Your task to perform on an android device: stop showing notifications on the lock screen Image 0: 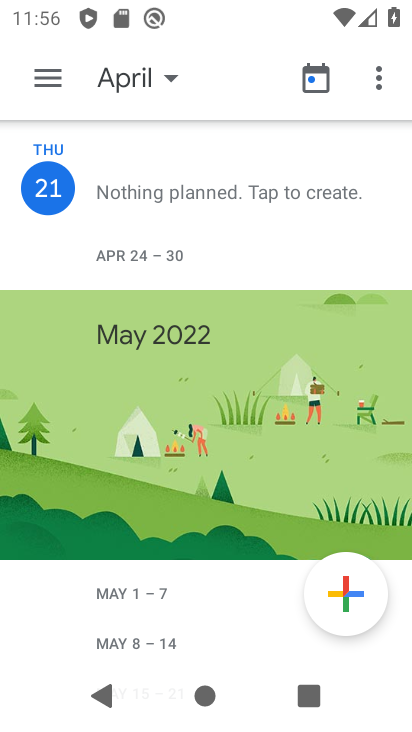
Step 0: press home button
Your task to perform on an android device: stop showing notifications on the lock screen Image 1: 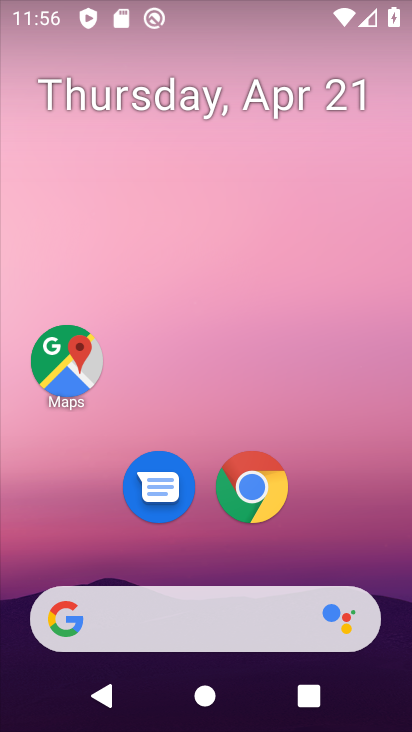
Step 1: drag from (278, 425) to (312, 58)
Your task to perform on an android device: stop showing notifications on the lock screen Image 2: 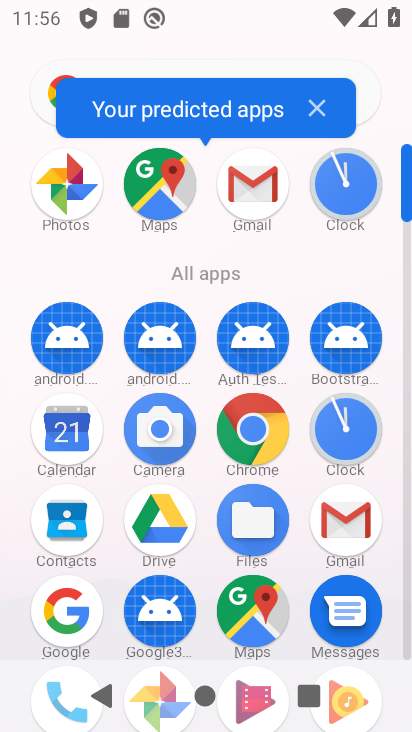
Step 2: drag from (228, 493) to (293, 83)
Your task to perform on an android device: stop showing notifications on the lock screen Image 3: 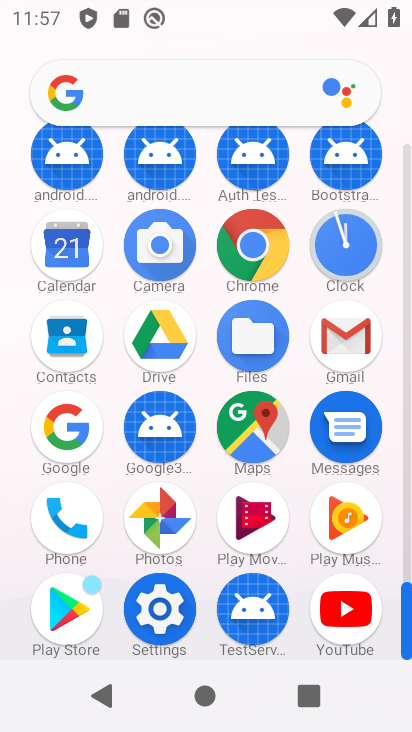
Step 3: click (153, 619)
Your task to perform on an android device: stop showing notifications on the lock screen Image 4: 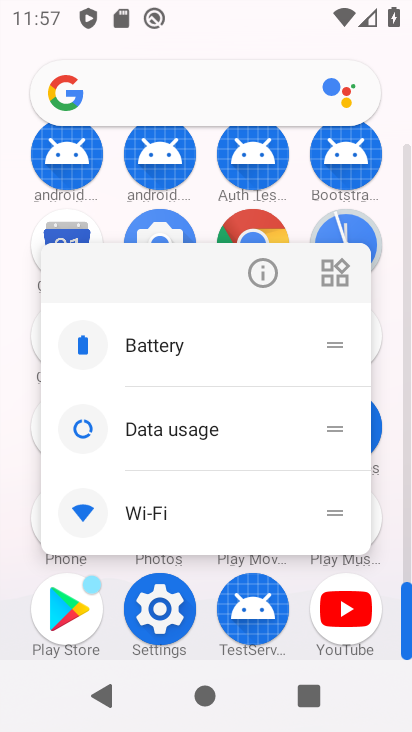
Step 4: click (158, 605)
Your task to perform on an android device: stop showing notifications on the lock screen Image 5: 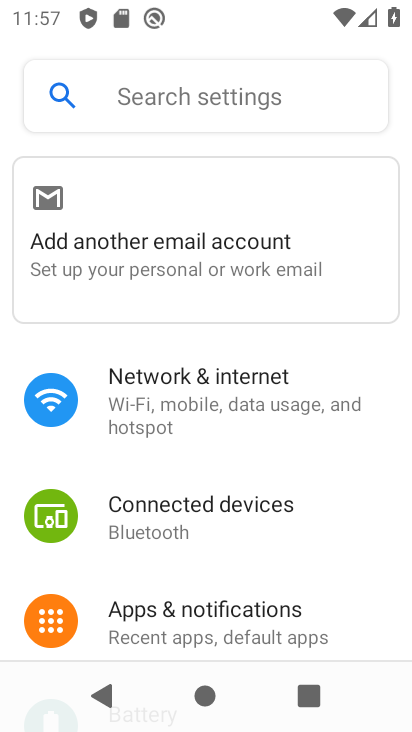
Step 5: click (215, 600)
Your task to perform on an android device: stop showing notifications on the lock screen Image 6: 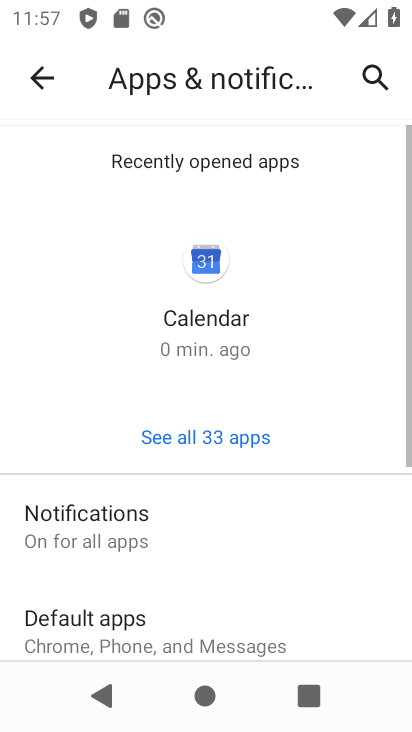
Step 6: click (144, 535)
Your task to perform on an android device: stop showing notifications on the lock screen Image 7: 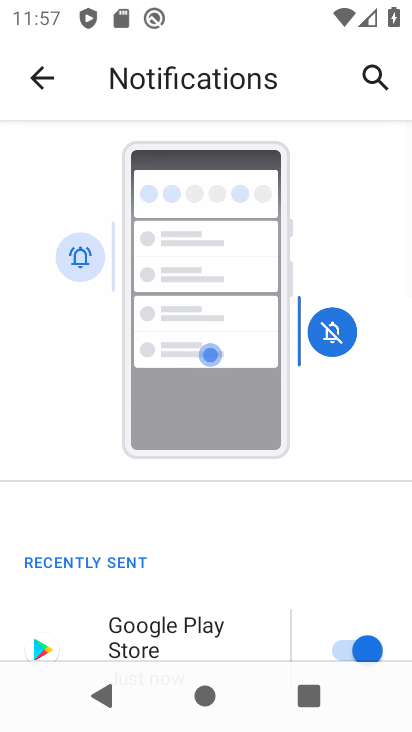
Step 7: drag from (218, 546) to (320, 3)
Your task to perform on an android device: stop showing notifications on the lock screen Image 8: 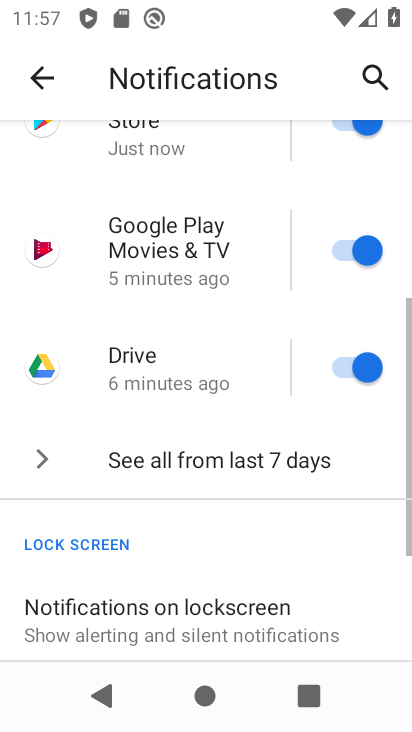
Step 8: click (193, 600)
Your task to perform on an android device: stop showing notifications on the lock screen Image 9: 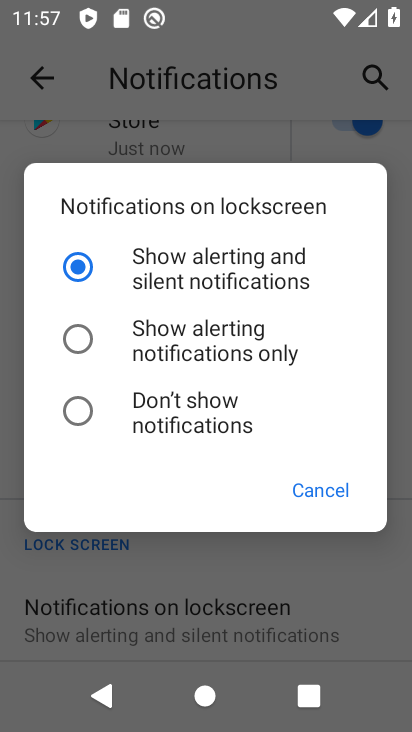
Step 9: click (71, 411)
Your task to perform on an android device: stop showing notifications on the lock screen Image 10: 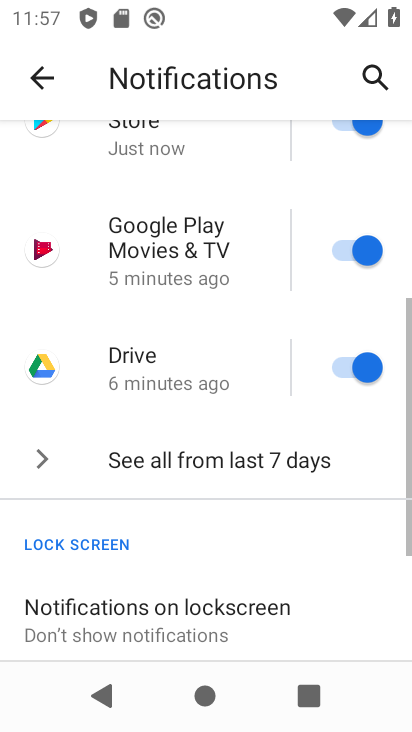
Step 10: task complete